Your task to perform on an android device: clear history in the chrome app Image 0: 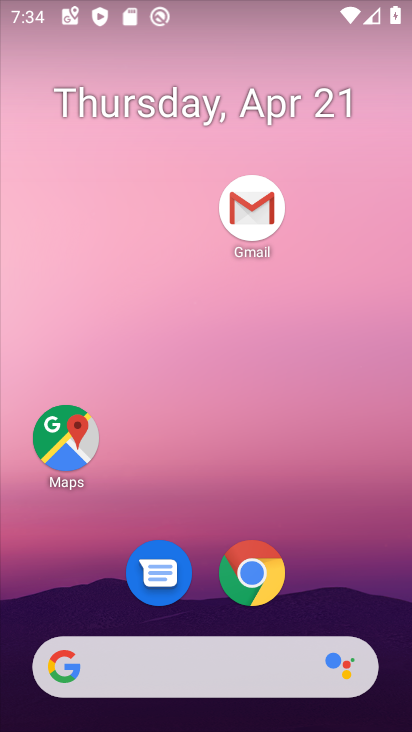
Step 0: drag from (318, 573) to (348, 170)
Your task to perform on an android device: clear history in the chrome app Image 1: 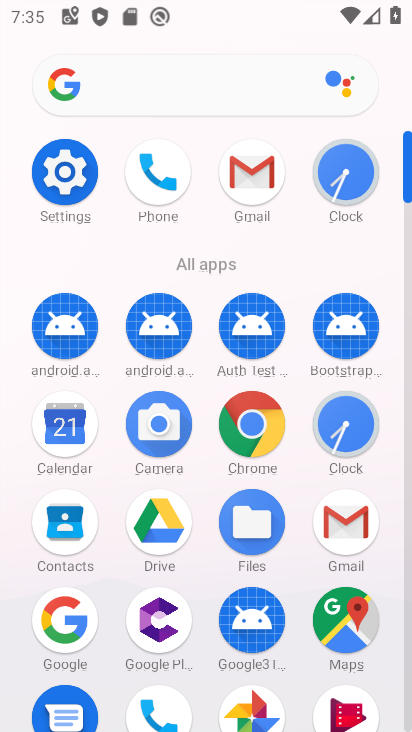
Step 1: click (250, 429)
Your task to perform on an android device: clear history in the chrome app Image 2: 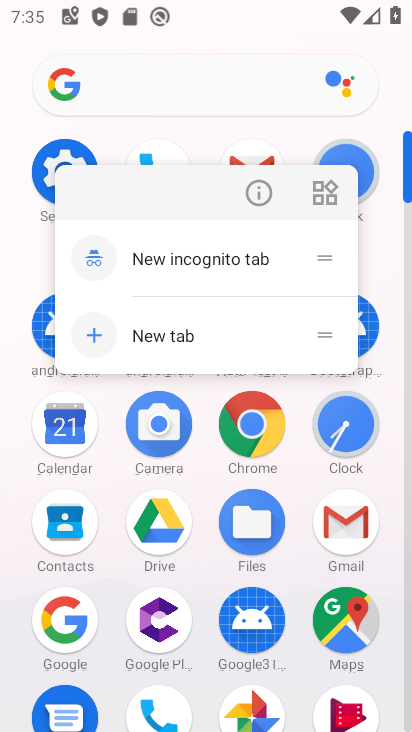
Step 2: click (250, 429)
Your task to perform on an android device: clear history in the chrome app Image 3: 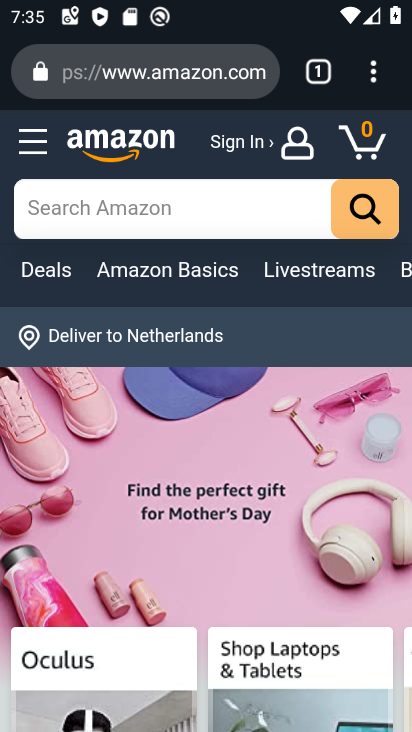
Step 3: drag from (377, 65) to (127, 414)
Your task to perform on an android device: clear history in the chrome app Image 4: 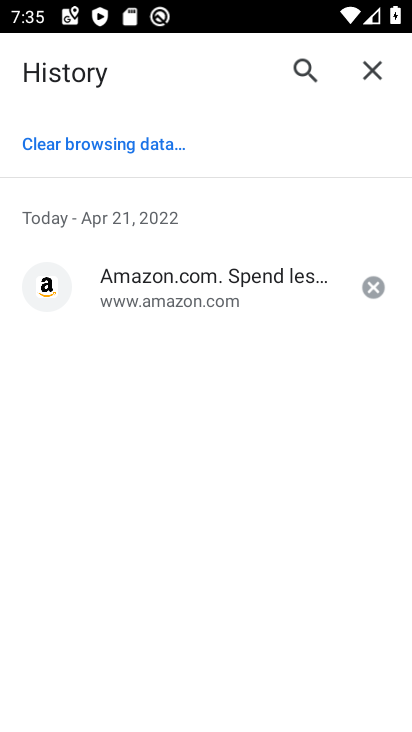
Step 4: click (83, 146)
Your task to perform on an android device: clear history in the chrome app Image 5: 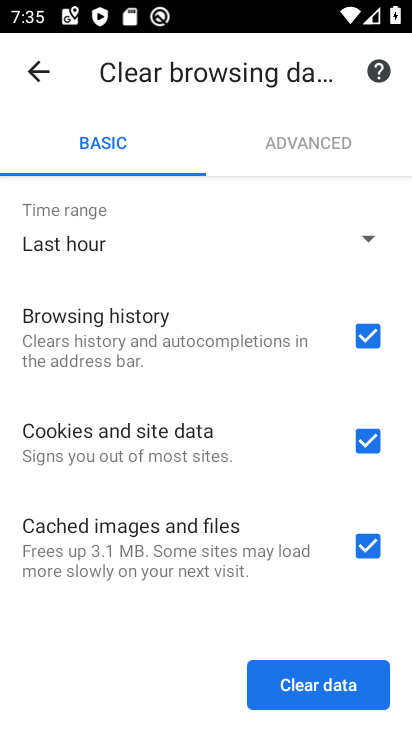
Step 5: click (362, 436)
Your task to perform on an android device: clear history in the chrome app Image 6: 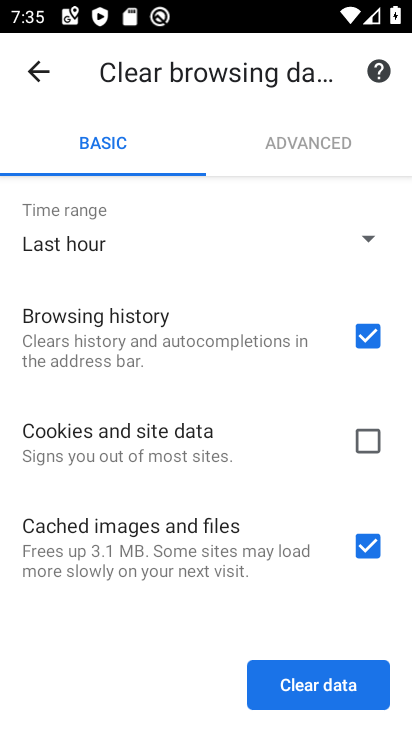
Step 6: click (363, 538)
Your task to perform on an android device: clear history in the chrome app Image 7: 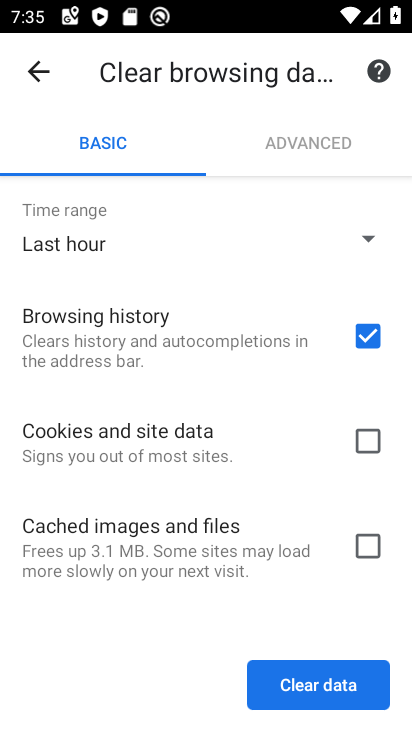
Step 7: click (328, 676)
Your task to perform on an android device: clear history in the chrome app Image 8: 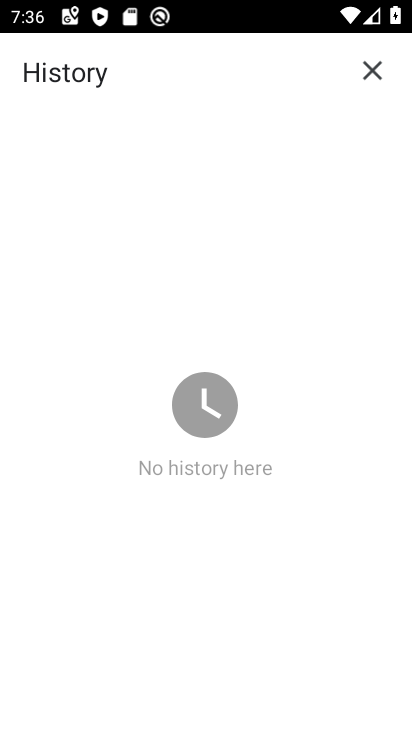
Step 8: task complete